Your task to perform on an android device: refresh tabs in the chrome app Image 0: 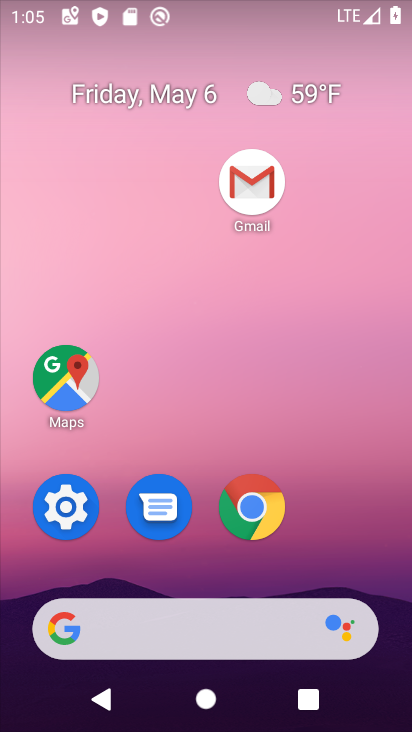
Step 0: click (256, 507)
Your task to perform on an android device: refresh tabs in the chrome app Image 1: 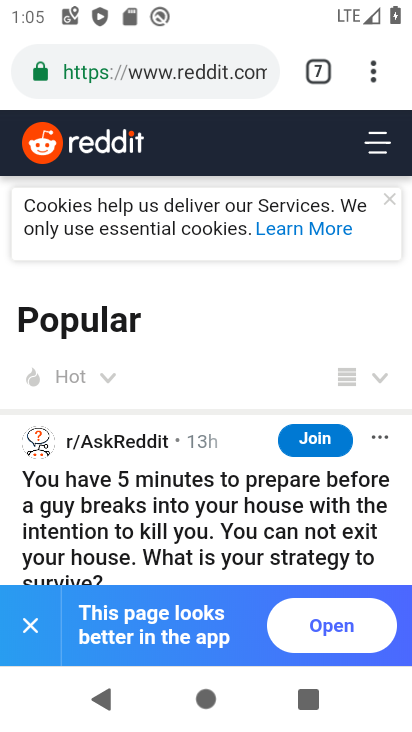
Step 1: click (378, 77)
Your task to perform on an android device: refresh tabs in the chrome app Image 2: 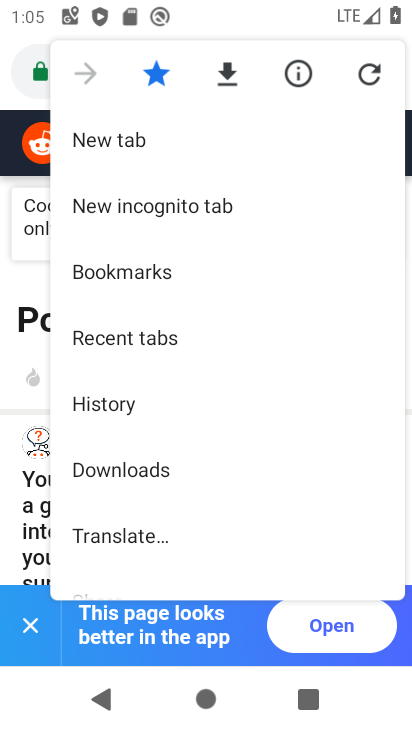
Step 2: click (369, 73)
Your task to perform on an android device: refresh tabs in the chrome app Image 3: 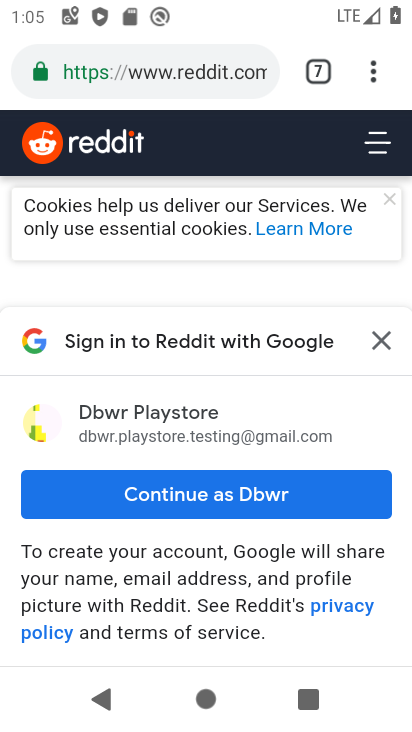
Step 3: task complete